Your task to perform on an android device: Open Youtube and go to "Your channel" Image 0: 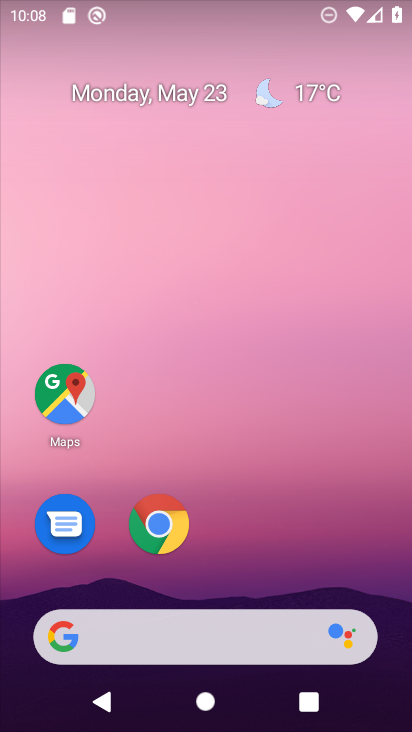
Step 0: drag from (220, 576) to (228, 171)
Your task to perform on an android device: Open Youtube and go to "Your channel" Image 1: 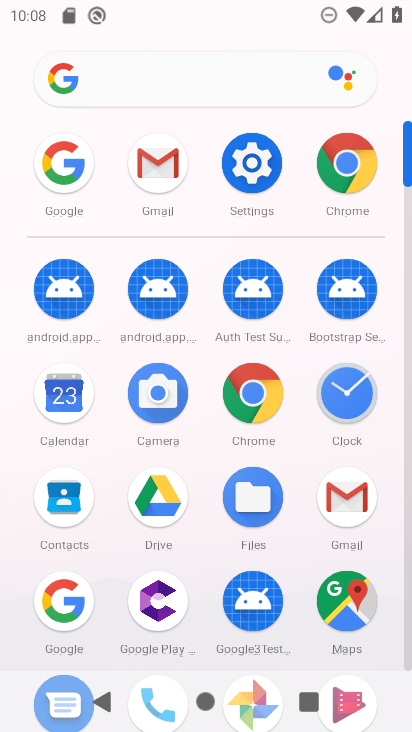
Step 1: drag from (299, 621) to (297, 195)
Your task to perform on an android device: Open Youtube and go to "Your channel" Image 2: 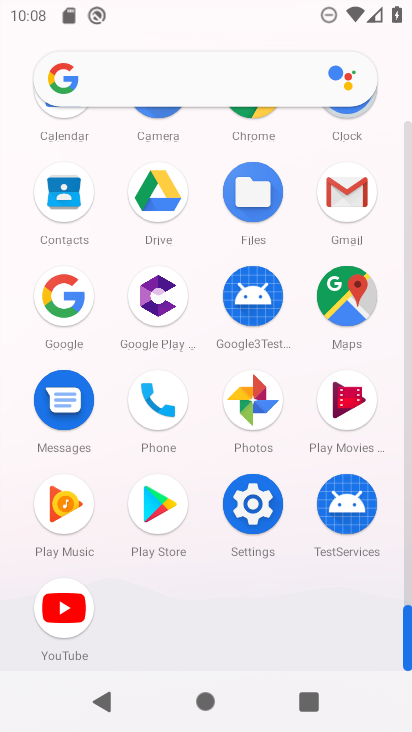
Step 2: drag from (276, 678) to (268, 332)
Your task to perform on an android device: Open Youtube and go to "Your channel" Image 3: 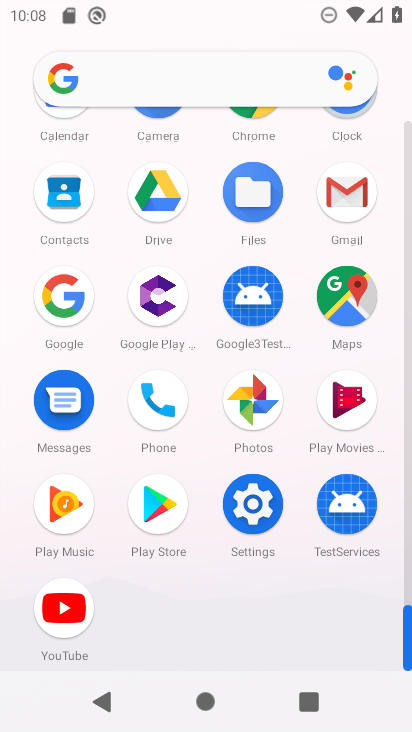
Step 3: click (75, 614)
Your task to perform on an android device: Open Youtube and go to "Your channel" Image 4: 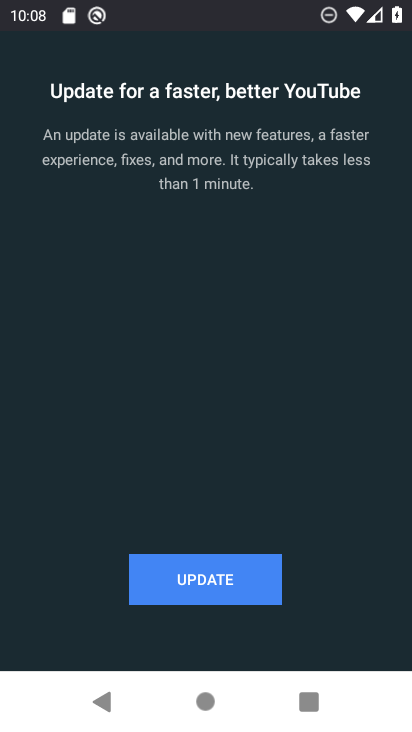
Step 4: click (252, 570)
Your task to perform on an android device: Open Youtube and go to "Your channel" Image 5: 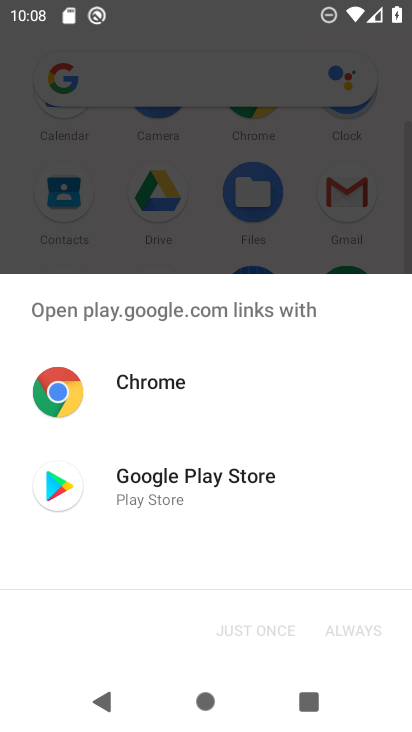
Step 5: click (149, 463)
Your task to perform on an android device: Open Youtube and go to "Your channel" Image 6: 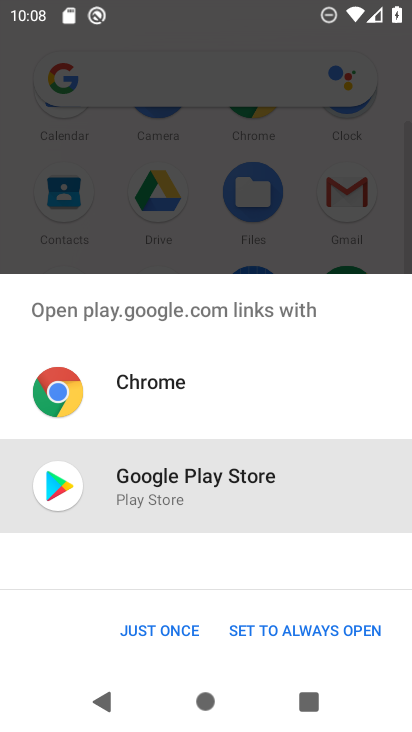
Step 6: click (188, 622)
Your task to perform on an android device: Open Youtube and go to "Your channel" Image 7: 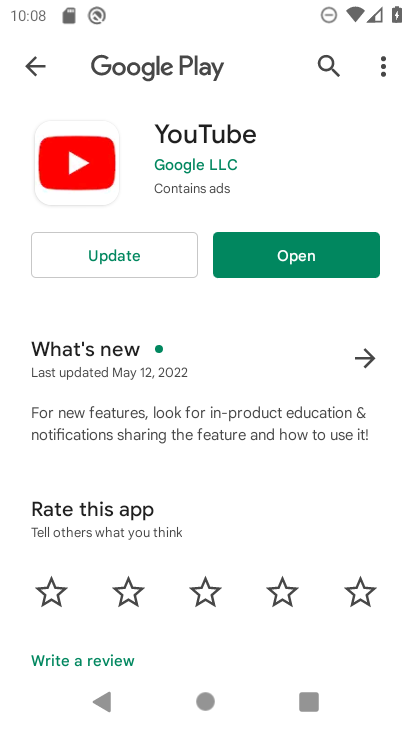
Step 7: click (131, 258)
Your task to perform on an android device: Open Youtube and go to "Your channel" Image 8: 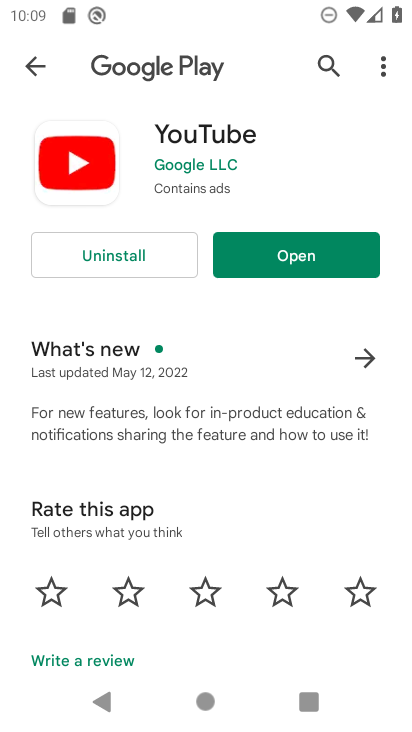
Step 8: click (296, 261)
Your task to perform on an android device: Open Youtube and go to "Your channel" Image 9: 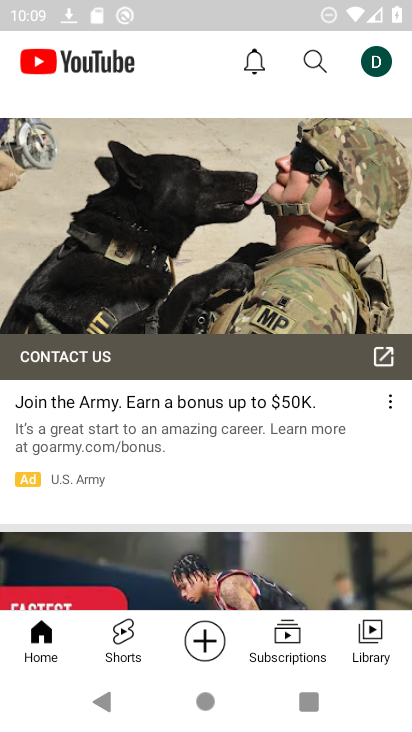
Step 9: click (369, 61)
Your task to perform on an android device: Open Youtube and go to "Your channel" Image 10: 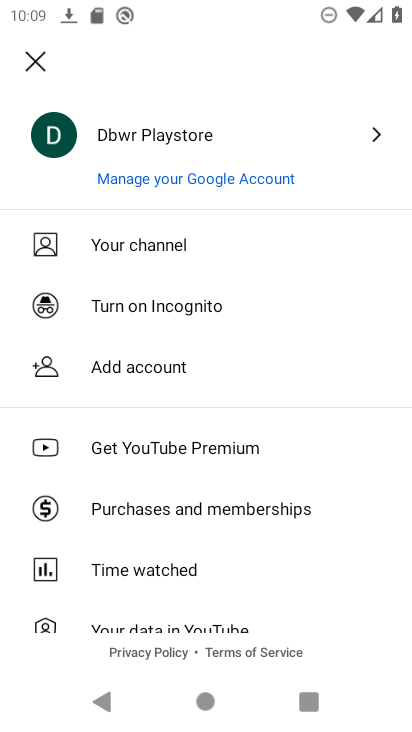
Step 10: click (99, 244)
Your task to perform on an android device: Open Youtube and go to "Your channel" Image 11: 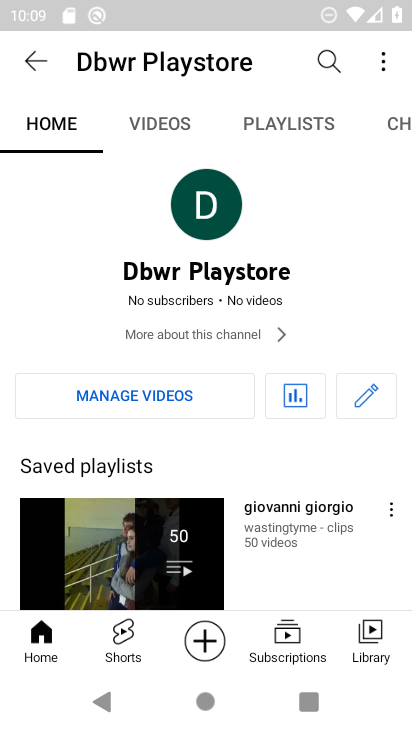
Step 11: task complete